Your task to perform on an android device: Search for the best selling TV on Best Buy. Image 0: 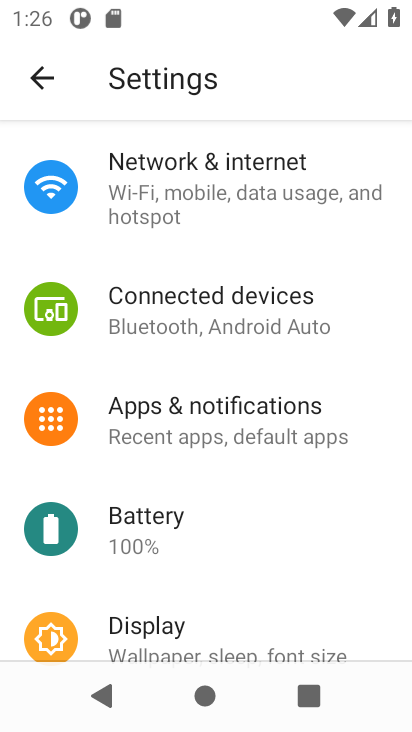
Step 0: press back button
Your task to perform on an android device: Search for the best selling TV on Best Buy. Image 1: 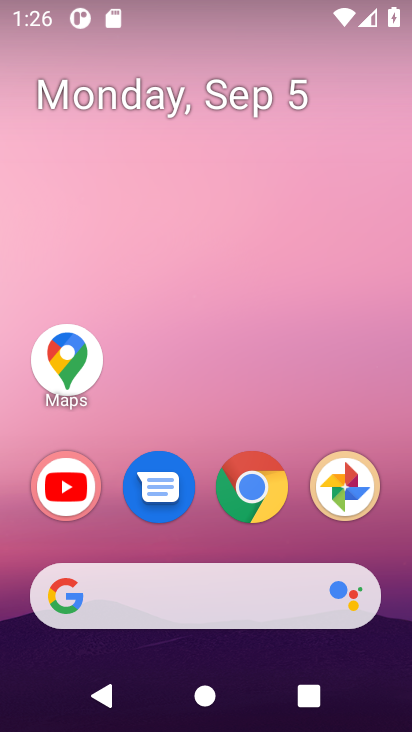
Step 1: click (260, 497)
Your task to perform on an android device: Search for the best selling TV on Best Buy. Image 2: 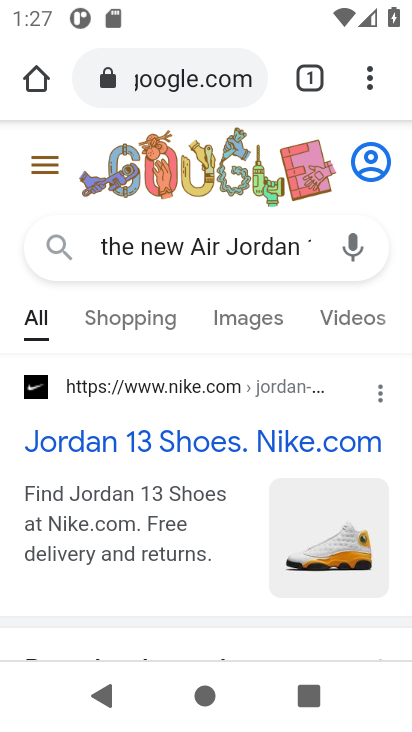
Step 2: click (202, 57)
Your task to perform on an android device: Search for the best selling TV on Best Buy. Image 3: 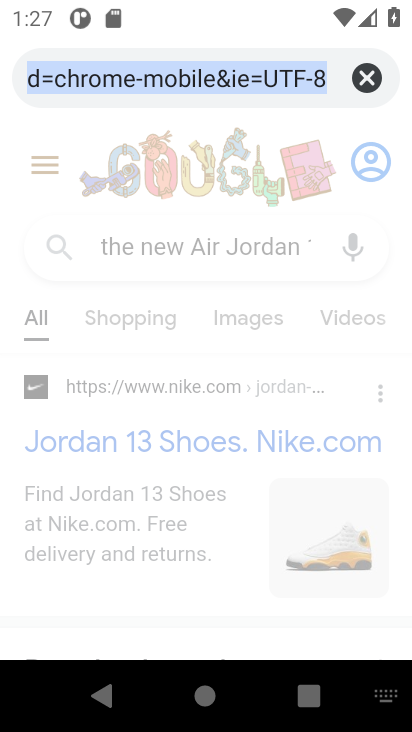
Step 3: click (368, 86)
Your task to perform on an android device: Search for the best selling TV on Best Buy. Image 4: 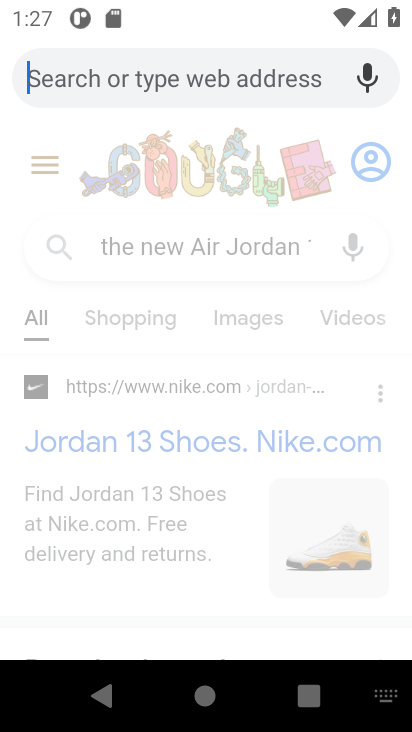
Step 4: type "the best selling TV on Best Buy."
Your task to perform on an android device: Search for the best selling TV on Best Buy. Image 5: 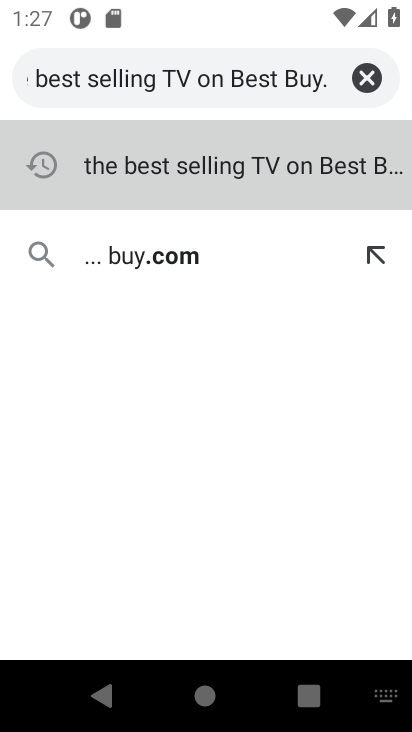
Step 5: click (181, 174)
Your task to perform on an android device: Search for the best selling TV on Best Buy. Image 6: 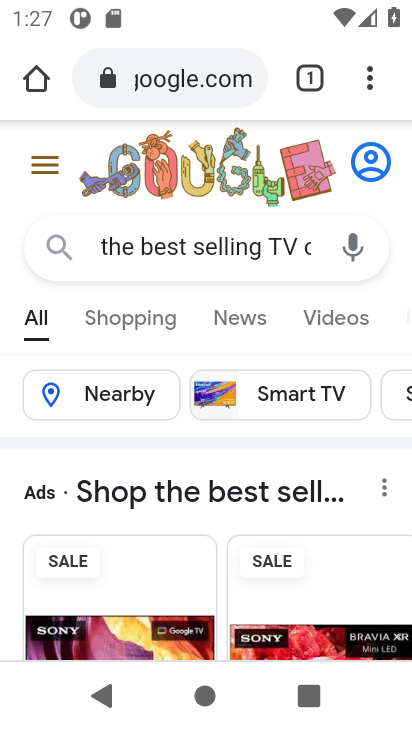
Step 6: task complete